Your task to perform on an android device: allow notifications from all sites in the chrome app Image 0: 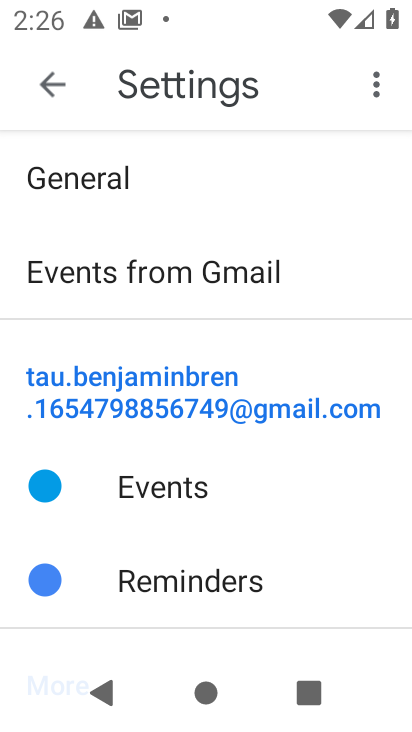
Step 0: press home button
Your task to perform on an android device: allow notifications from all sites in the chrome app Image 1: 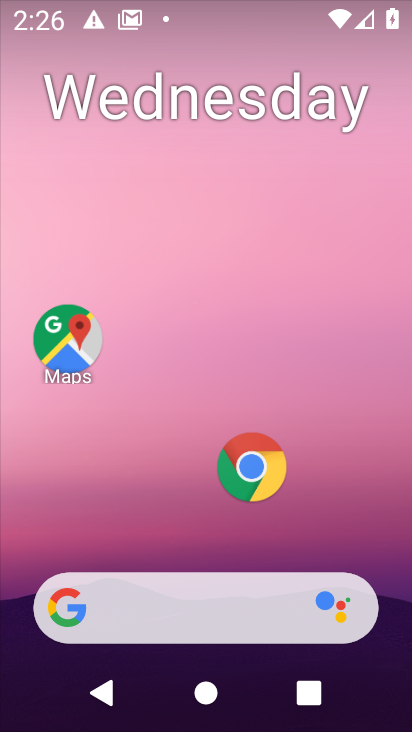
Step 1: drag from (140, 508) to (240, 217)
Your task to perform on an android device: allow notifications from all sites in the chrome app Image 2: 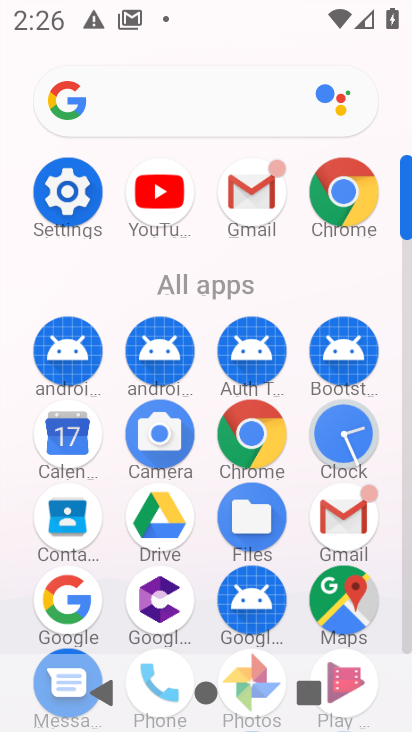
Step 2: drag from (176, 539) to (203, 247)
Your task to perform on an android device: allow notifications from all sites in the chrome app Image 3: 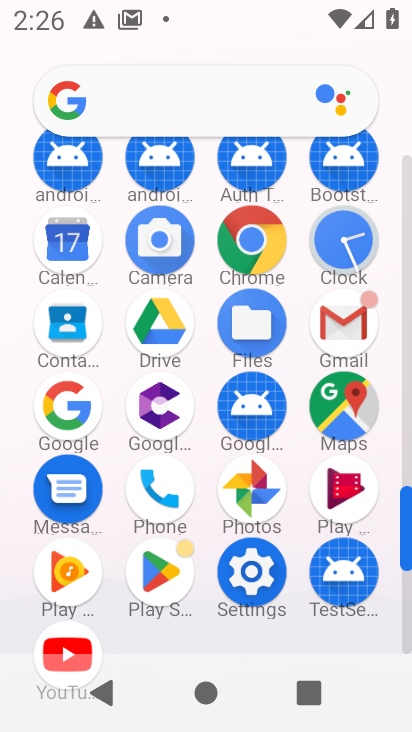
Step 3: click (260, 572)
Your task to perform on an android device: allow notifications from all sites in the chrome app Image 4: 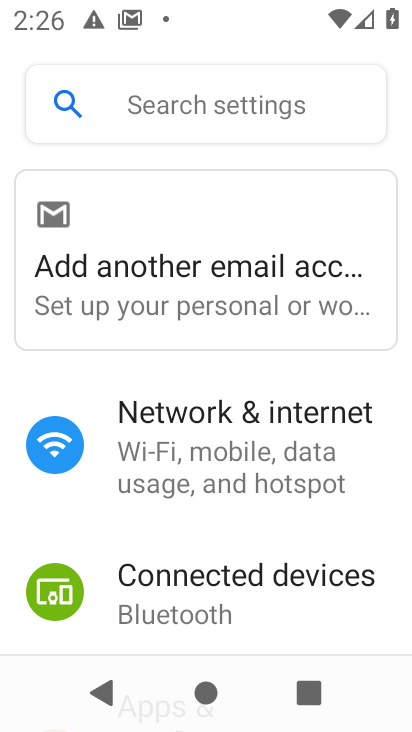
Step 4: task complete